Your task to perform on an android device: Open calendar and show me the fourth week of next month Image 0: 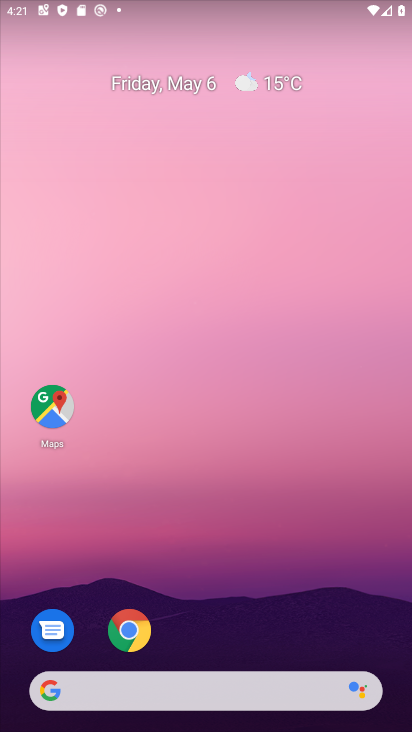
Step 0: drag from (209, 446) to (247, 76)
Your task to perform on an android device: Open calendar and show me the fourth week of next month Image 1: 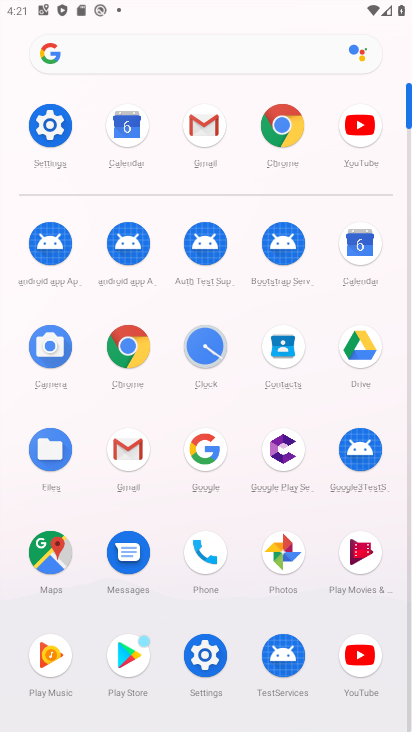
Step 1: click (123, 129)
Your task to perform on an android device: Open calendar and show me the fourth week of next month Image 2: 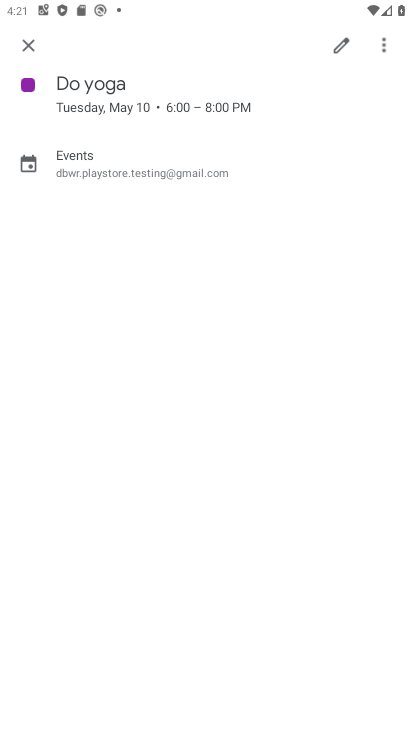
Step 2: click (21, 38)
Your task to perform on an android device: Open calendar and show me the fourth week of next month Image 3: 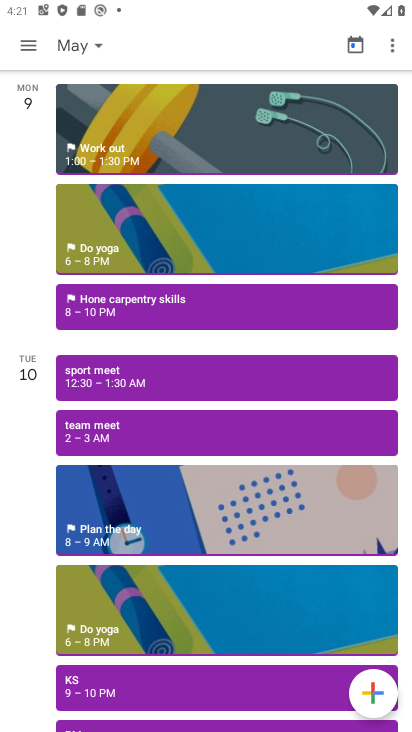
Step 3: click (82, 45)
Your task to perform on an android device: Open calendar and show me the fourth week of next month Image 4: 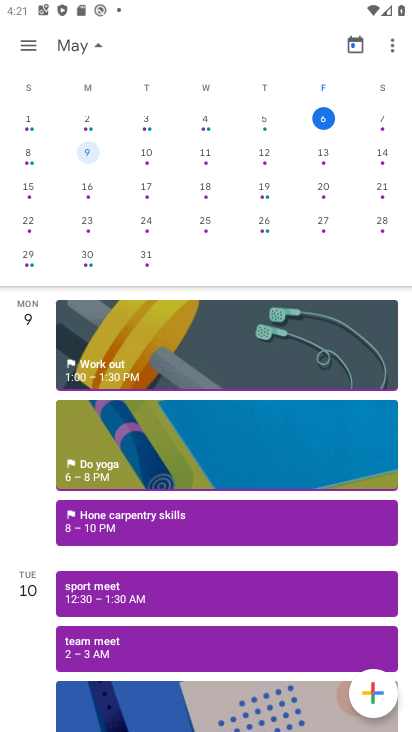
Step 4: drag from (339, 208) to (14, 189)
Your task to perform on an android device: Open calendar and show me the fourth week of next month Image 5: 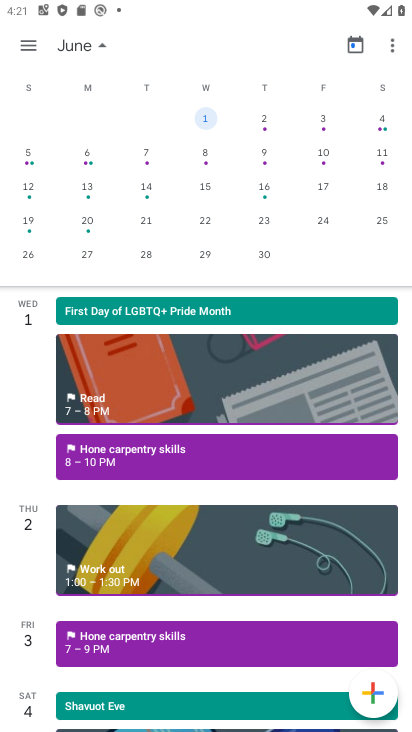
Step 5: click (87, 256)
Your task to perform on an android device: Open calendar and show me the fourth week of next month Image 6: 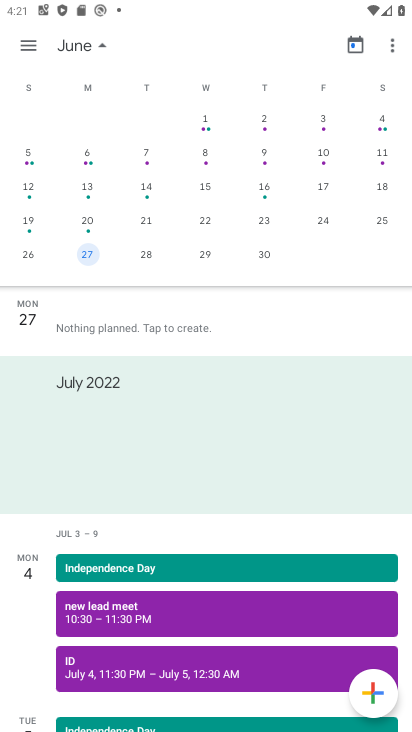
Step 6: task complete